Your task to perform on an android device: Open sound settings Image 0: 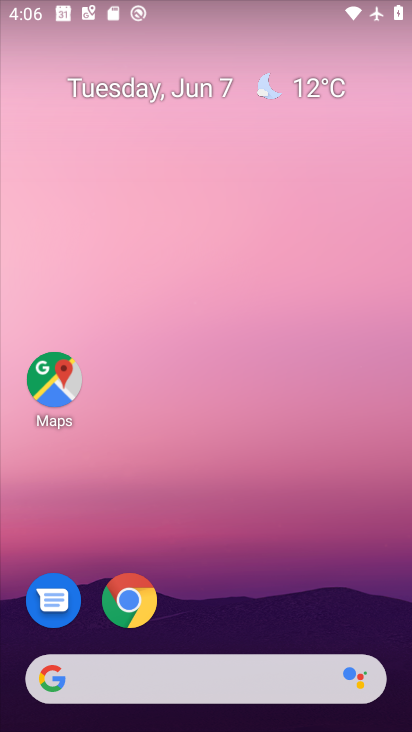
Step 0: drag from (248, 595) to (279, 271)
Your task to perform on an android device: Open sound settings Image 1: 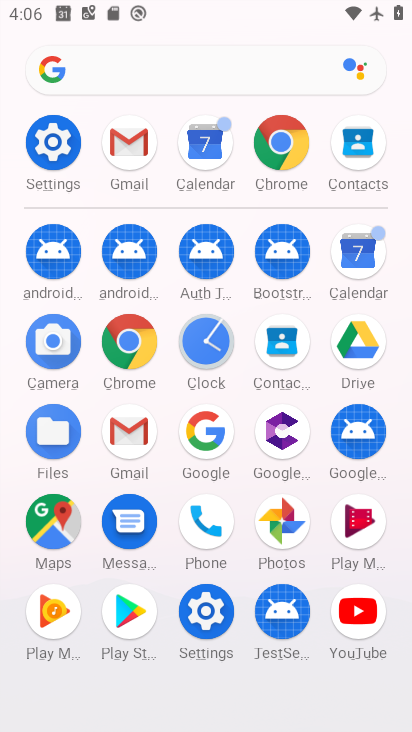
Step 1: click (40, 141)
Your task to perform on an android device: Open sound settings Image 2: 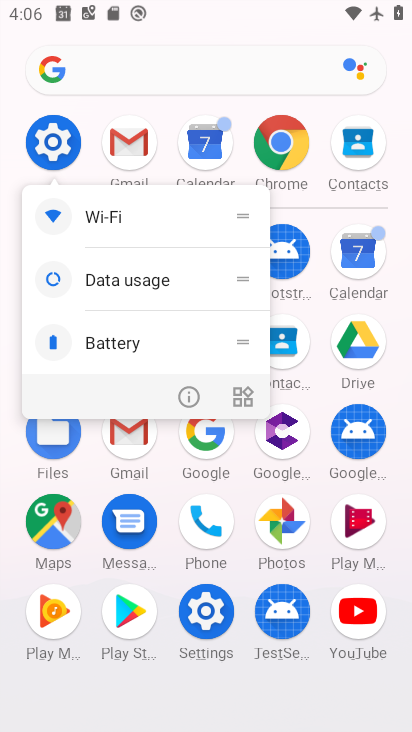
Step 2: click (56, 147)
Your task to perform on an android device: Open sound settings Image 3: 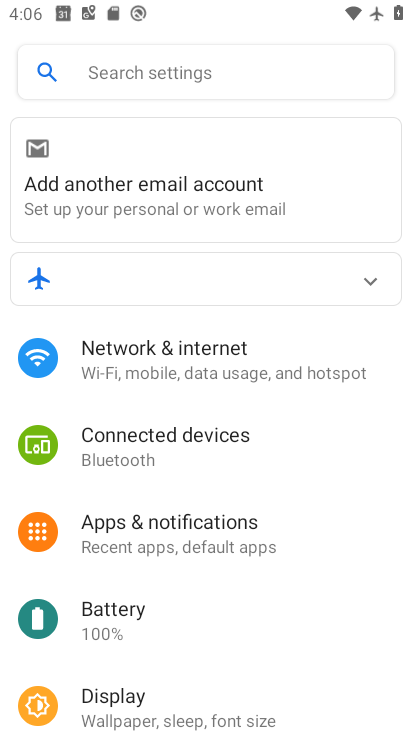
Step 3: drag from (229, 517) to (284, 112)
Your task to perform on an android device: Open sound settings Image 4: 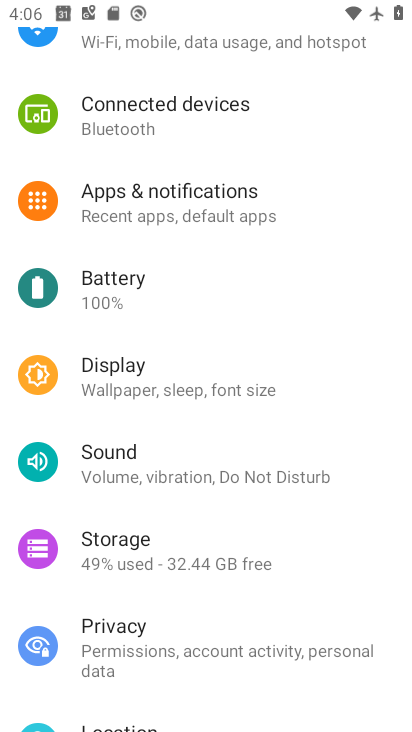
Step 4: drag from (209, 483) to (310, 250)
Your task to perform on an android device: Open sound settings Image 5: 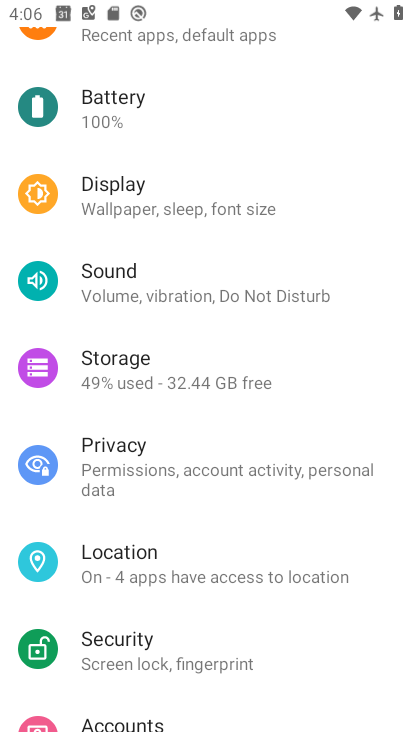
Step 5: click (197, 292)
Your task to perform on an android device: Open sound settings Image 6: 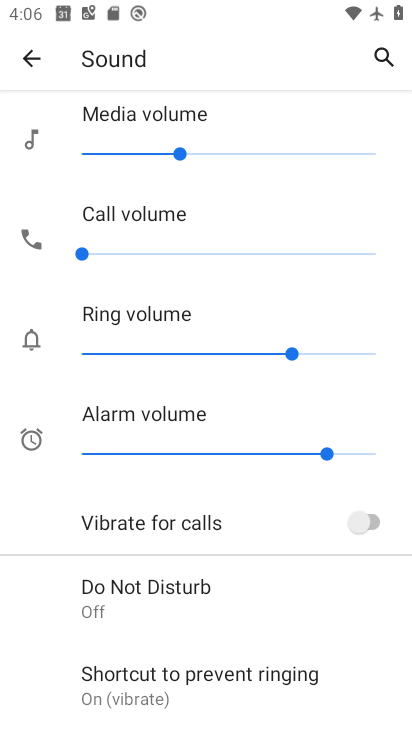
Step 6: task complete